Your task to perform on an android device: open app "Adobe Acrobat Reader: Edit PDF" (install if not already installed) Image 0: 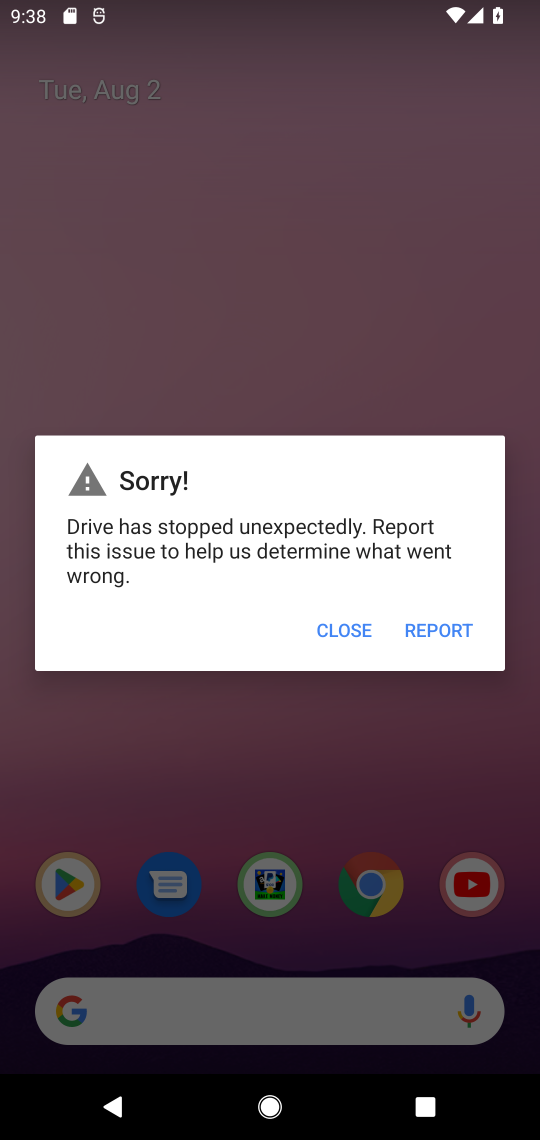
Step 0: click (335, 631)
Your task to perform on an android device: open app "Adobe Acrobat Reader: Edit PDF" (install if not already installed) Image 1: 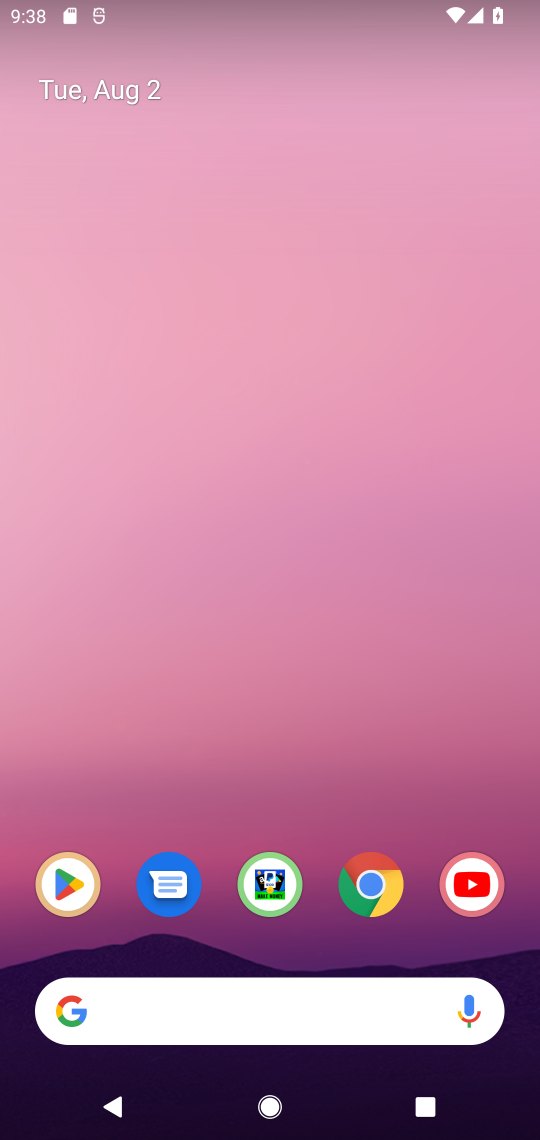
Step 1: click (71, 891)
Your task to perform on an android device: open app "Adobe Acrobat Reader: Edit PDF" (install if not already installed) Image 2: 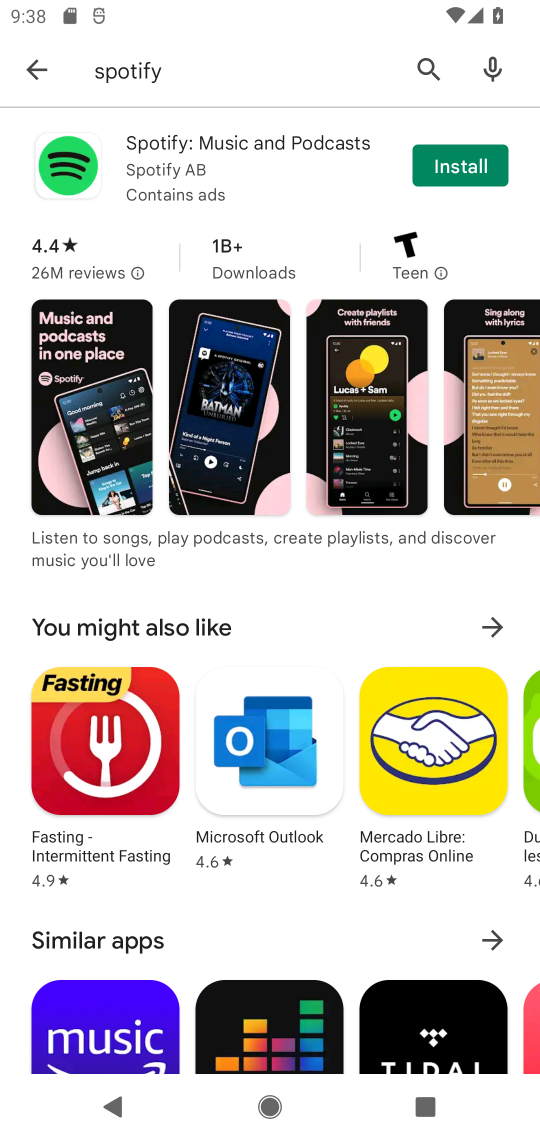
Step 2: click (167, 68)
Your task to perform on an android device: open app "Adobe Acrobat Reader: Edit PDF" (install if not already installed) Image 3: 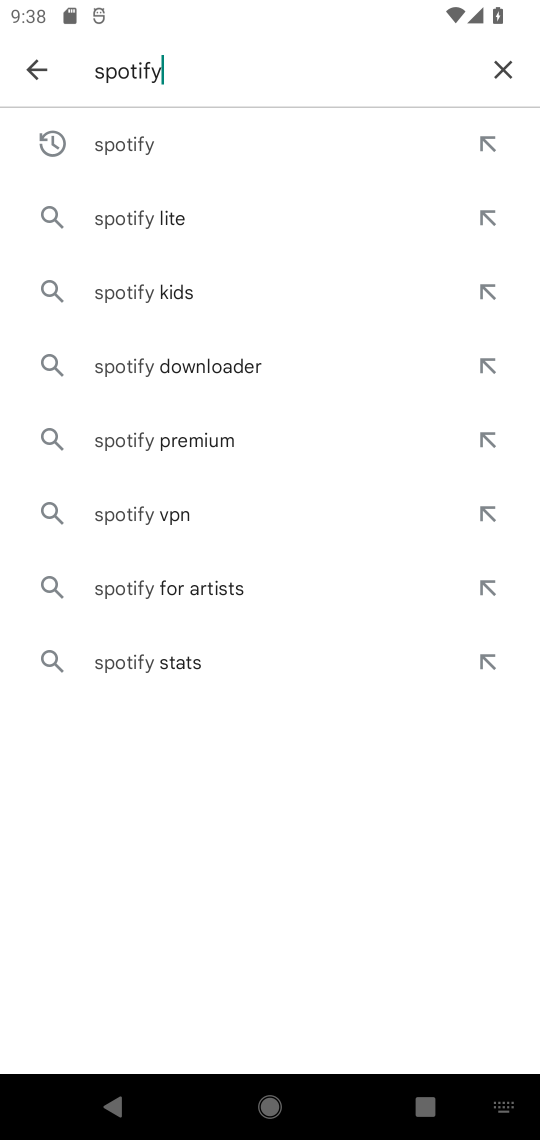
Step 3: click (508, 74)
Your task to perform on an android device: open app "Adobe Acrobat Reader: Edit PDF" (install if not already installed) Image 4: 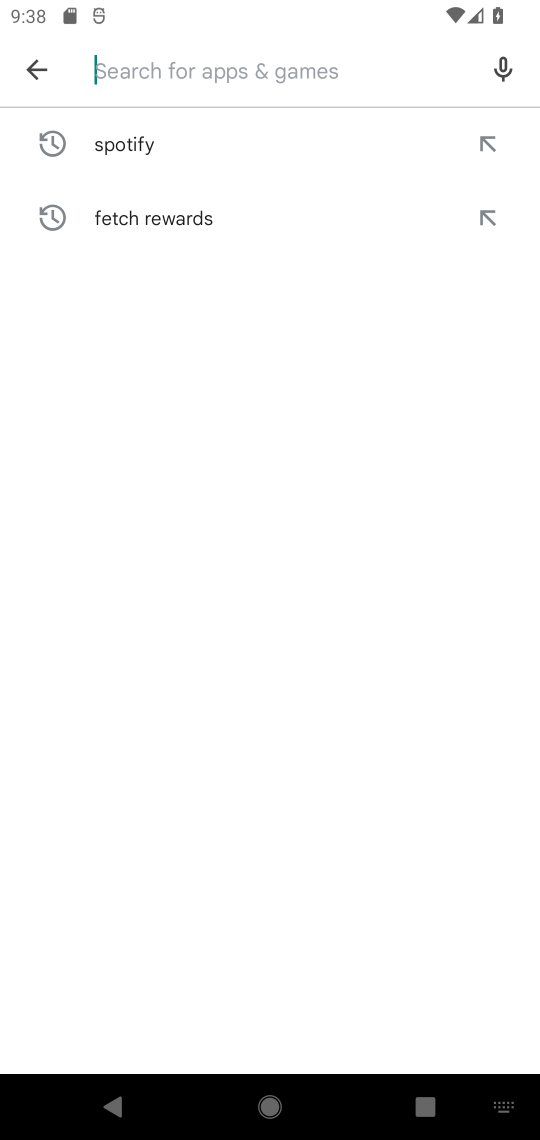
Step 4: type "Adobe Acrobat Reader"
Your task to perform on an android device: open app "Adobe Acrobat Reader: Edit PDF" (install if not already installed) Image 5: 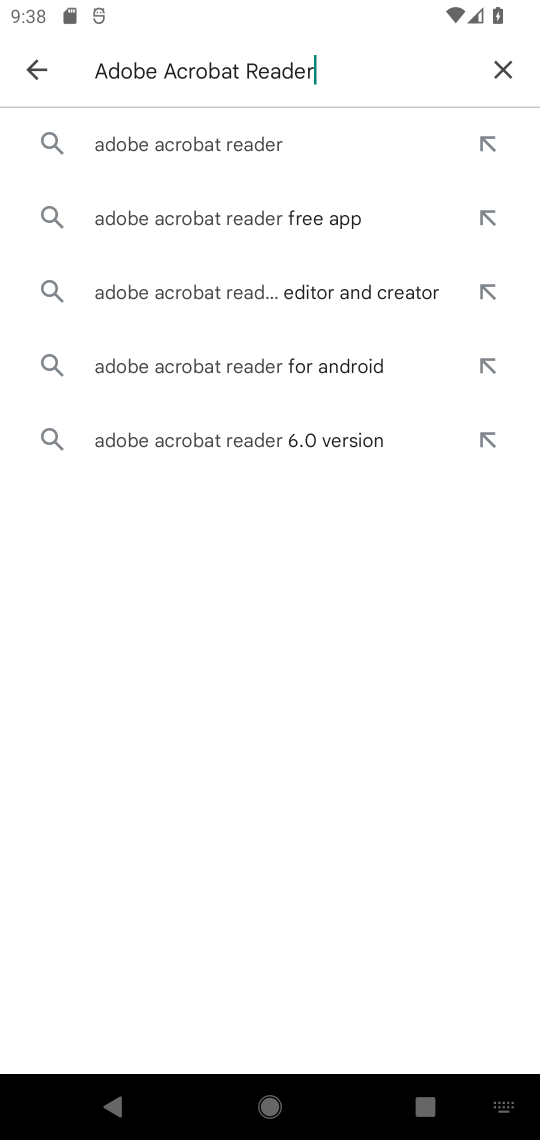
Step 5: click (140, 142)
Your task to perform on an android device: open app "Adobe Acrobat Reader: Edit PDF" (install if not already installed) Image 6: 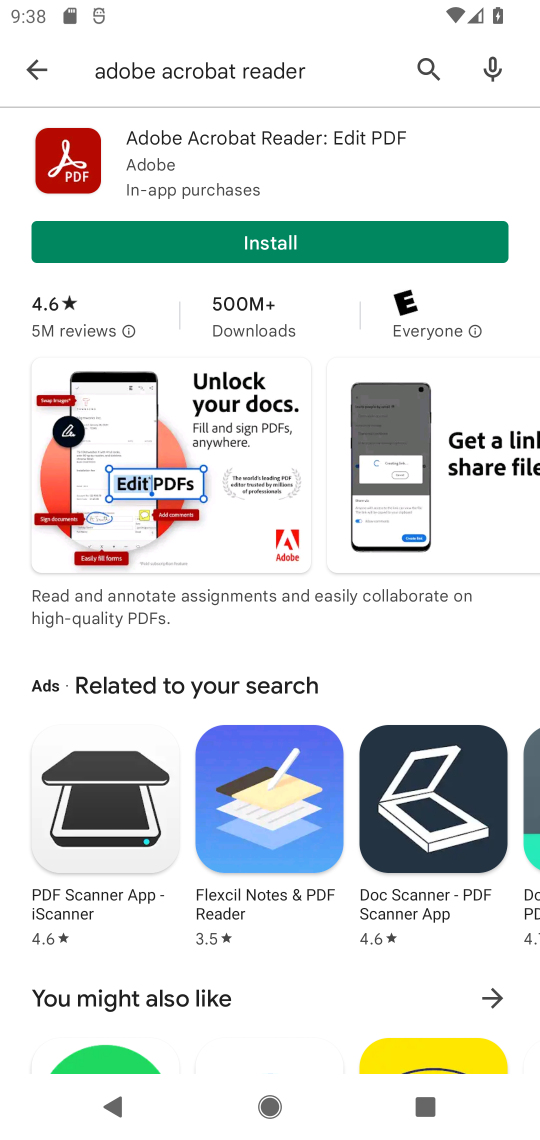
Step 6: click (342, 243)
Your task to perform on an android device: open app "Adobe Acrobat Reader: Edit PDF" (install if not already installed) Image 7: 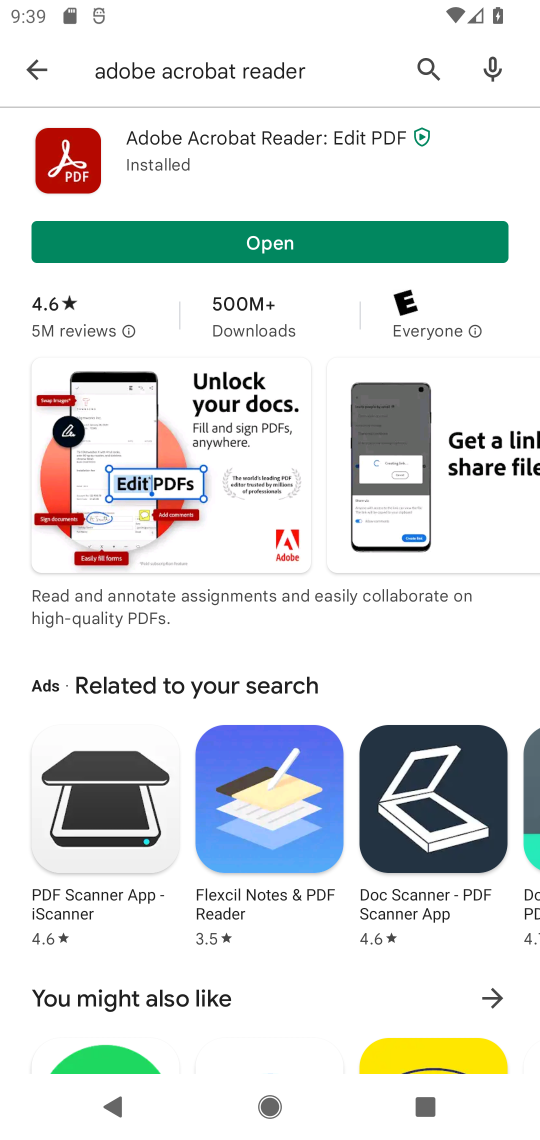
Step 7: click (323, 242)
Your task to perform on an android device: open app "Adobe Acrobat Reader: Edit PDF" (install if not already installed) Image 8: 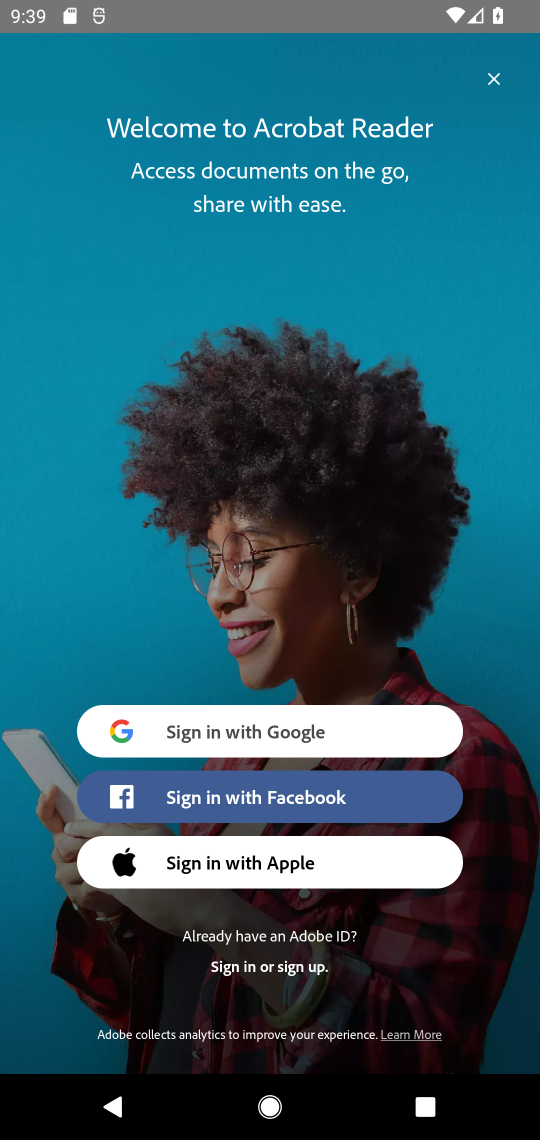
Step 8: click (303, 730)
Your task to perform on an android device: open app "Adobe Acrobat Reader: Edit PDF" (install if not already installed) Image 9: 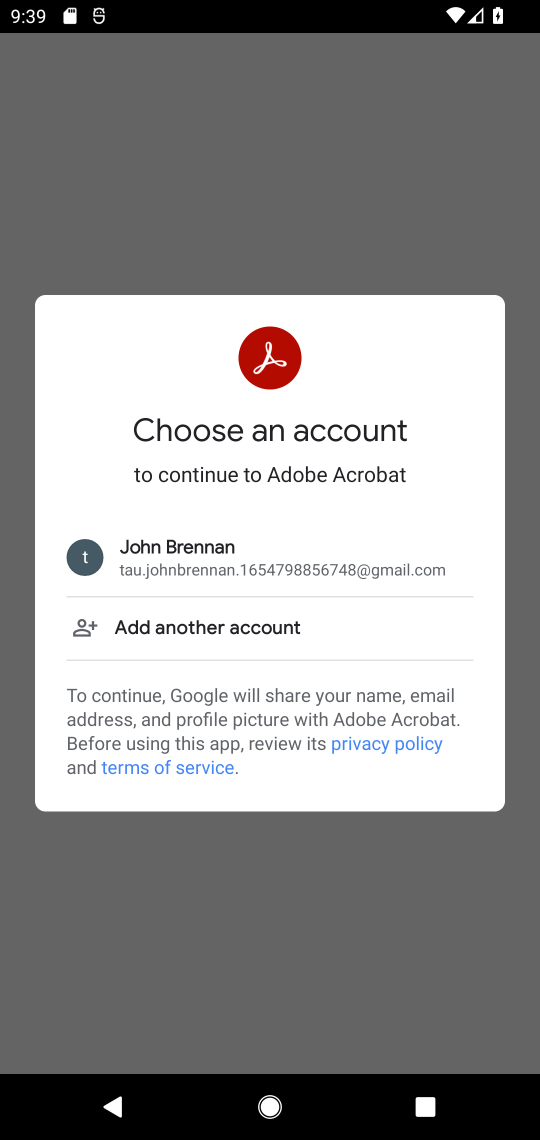
Step 9: click (282, 542)
Your task to perform on an android device: open app "Adobe Acrobat Reader: Edit PDF" (install if not already installed) Image 10: 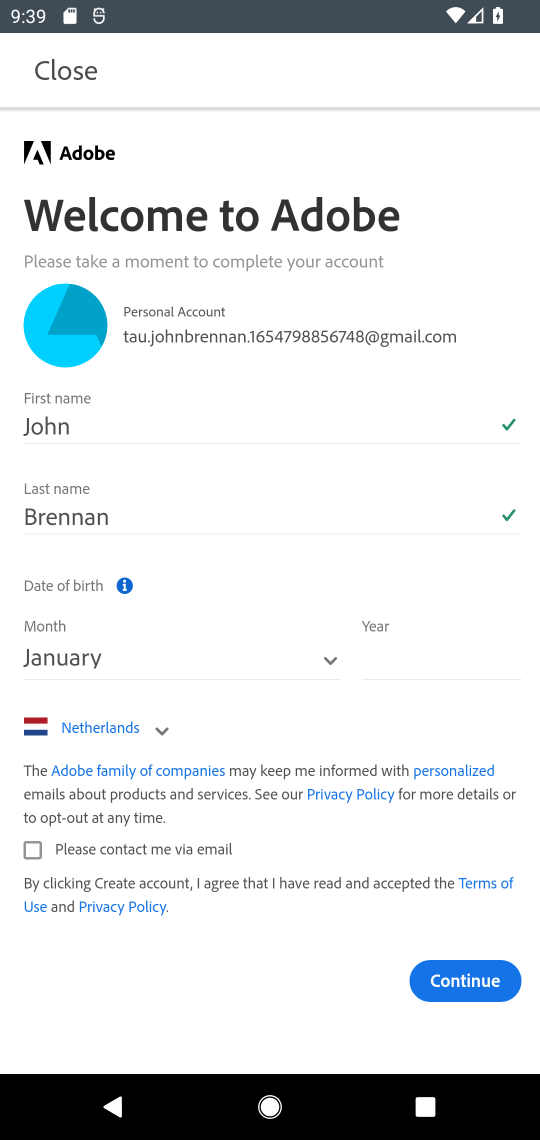
Step 10: click (415, 649)
Your task to perform on an android device: open app "Adobe Acrobat Reader: Edit PDF" (install if not already installed) Image 11: 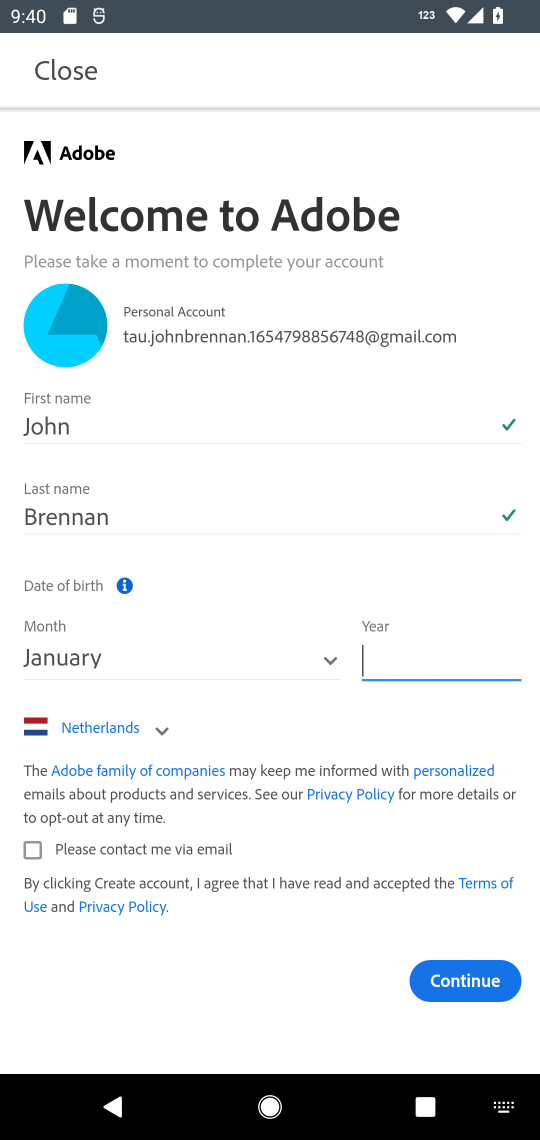
Step 11: type "1990"
Your task to perform on an android device: open app "Adobe Acrobat Reader: Edit PDF" (install if not already installed) Image 12: 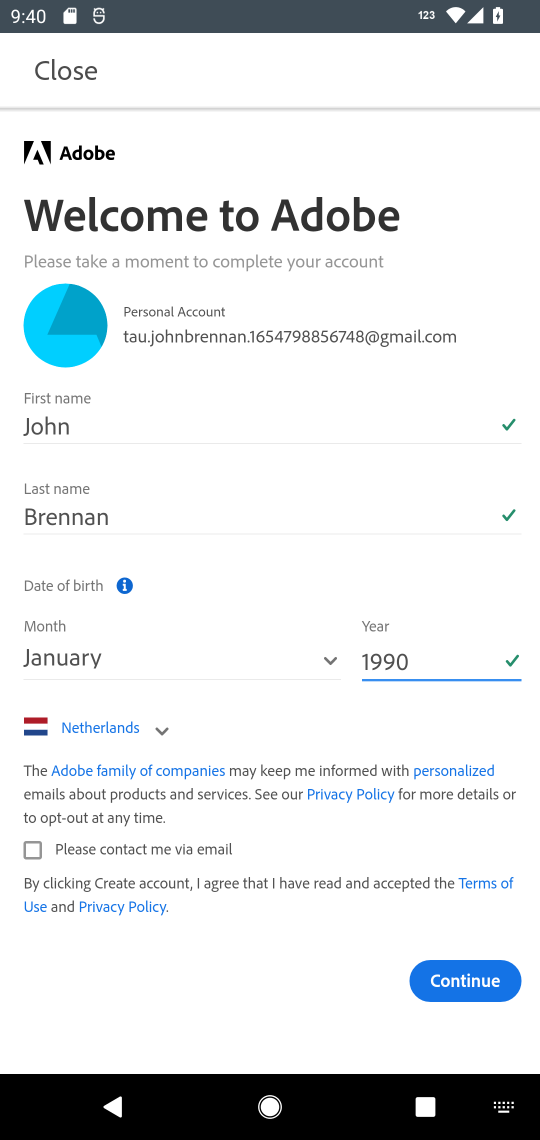
Step 12: click (40, 839)
Your task to perform on an android device: open app "Adobe Acrobat Reader: Edit PDF" (install if not already installed) Image 13: 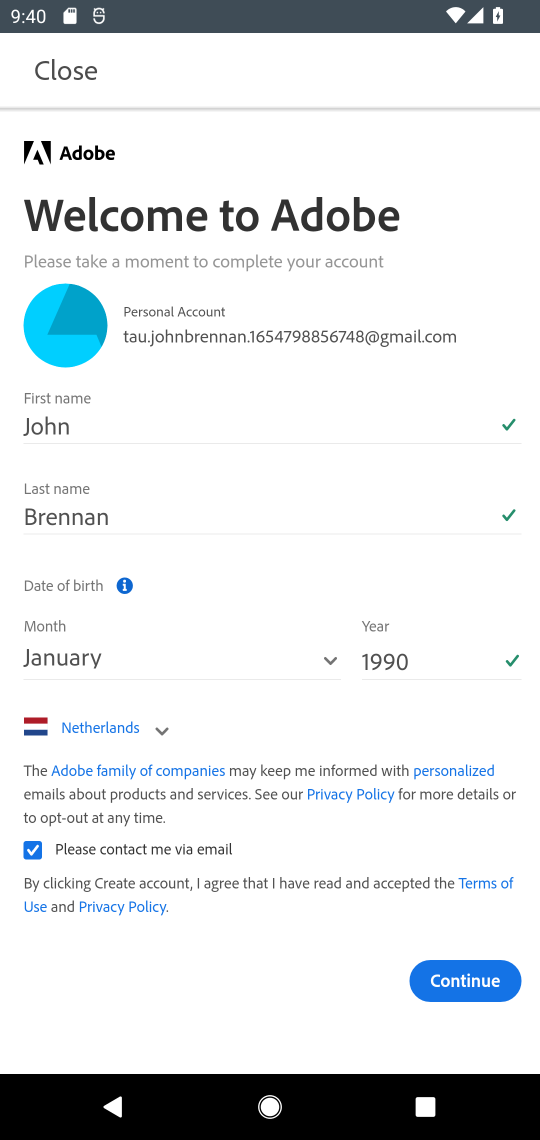
Step 13: click (499, 981)
Your task to perform on an android device: open app "Adobe Acrobat Reader: Edit PDF" (install if not already installed) Image 14: 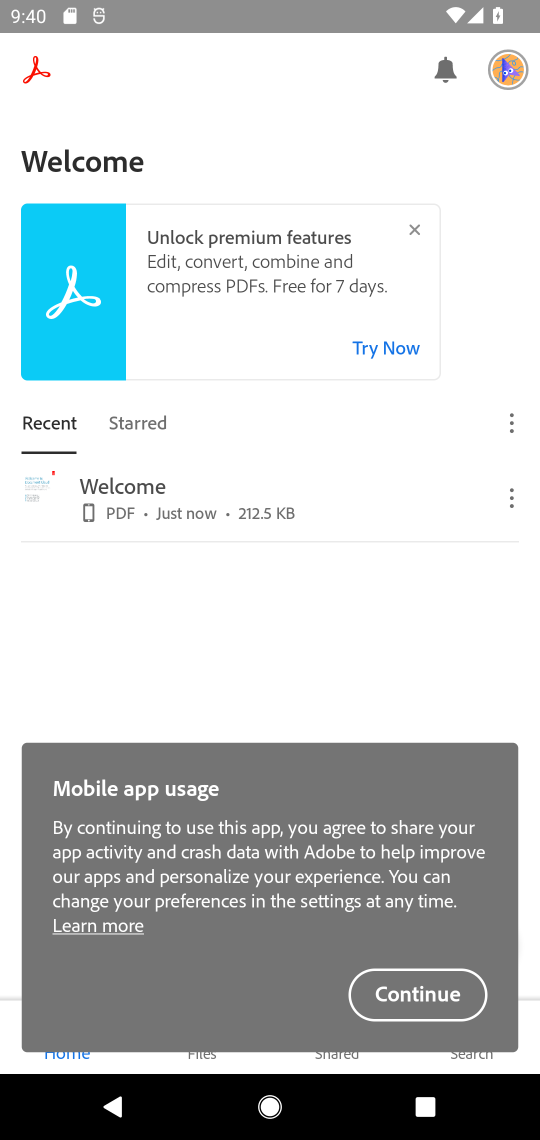
Step 14: task complete